Your task to perform on an android device: Open settings Image 0: 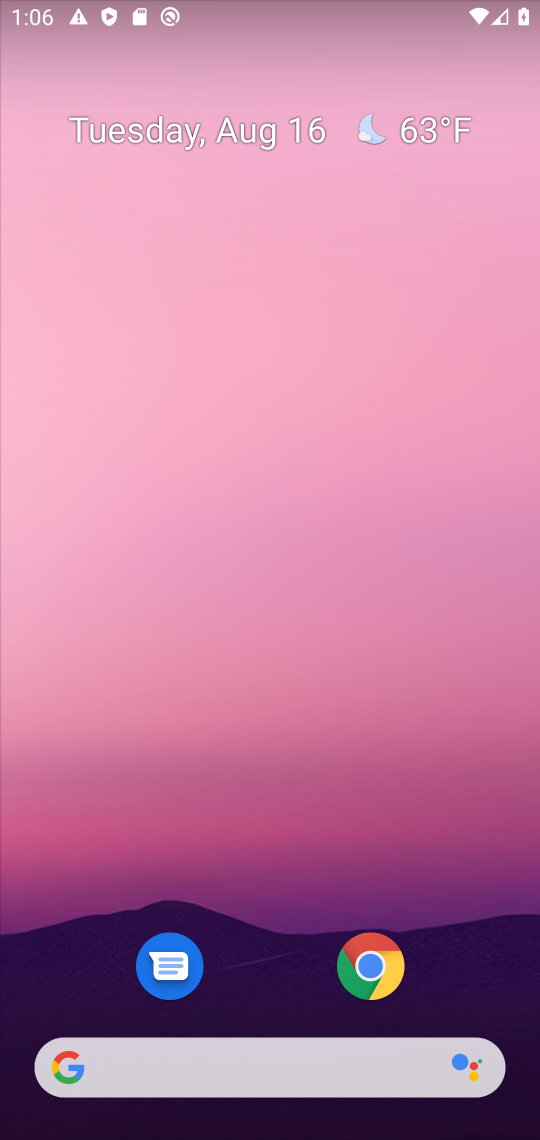
Step 0: drag from (272, 927) to (170, 137)
Your task to perform on an android device: Open settings Image 1: 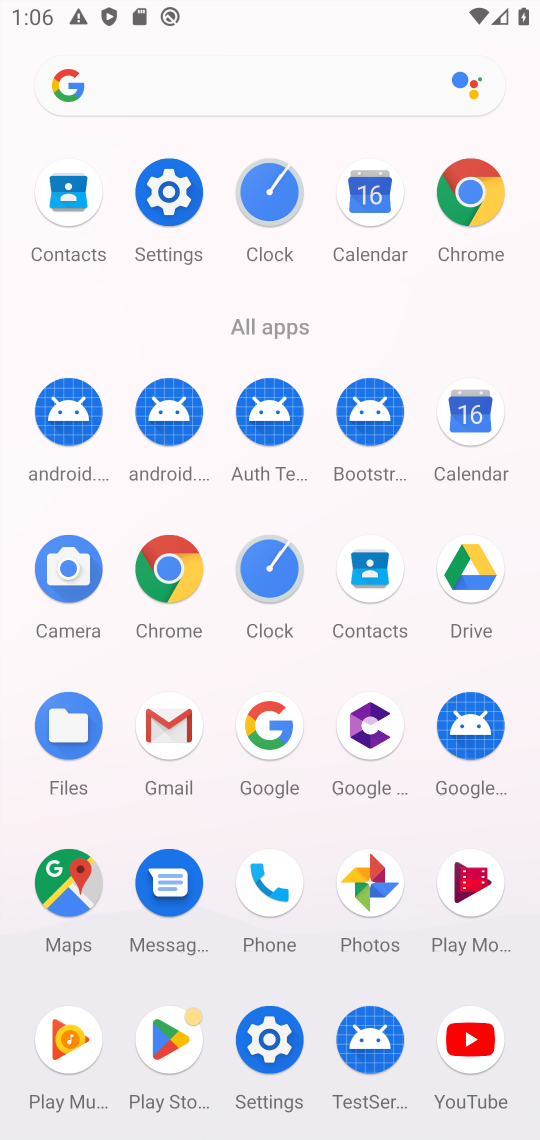
Step 1: click (168, 187)
Your task to perform on an android device: Open settings Image 2: 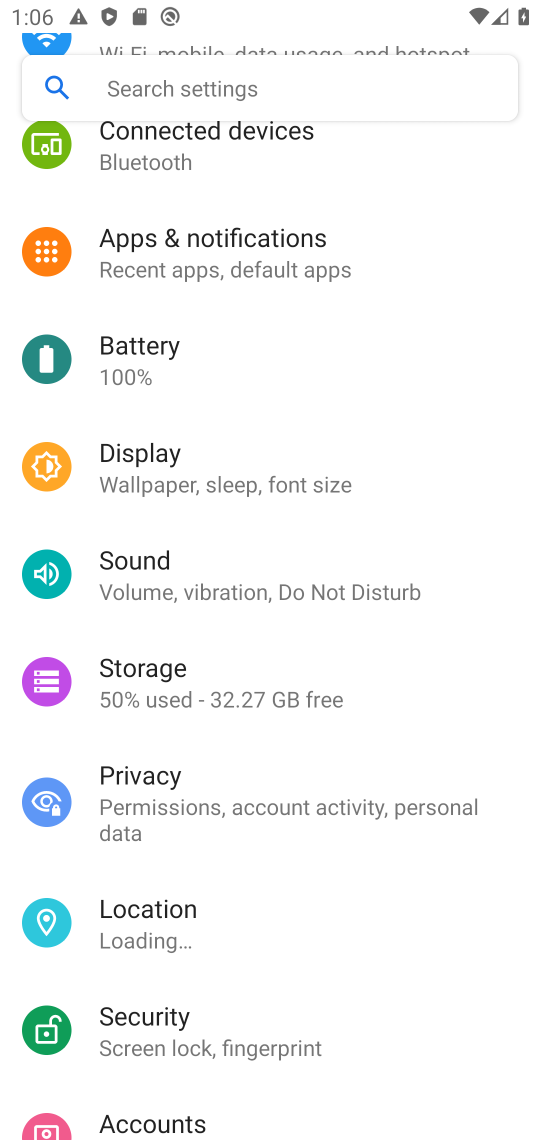
Step 2: task complete